Your task to perform on an android device: Search for seafood restaurants on Google Maps Image 0: 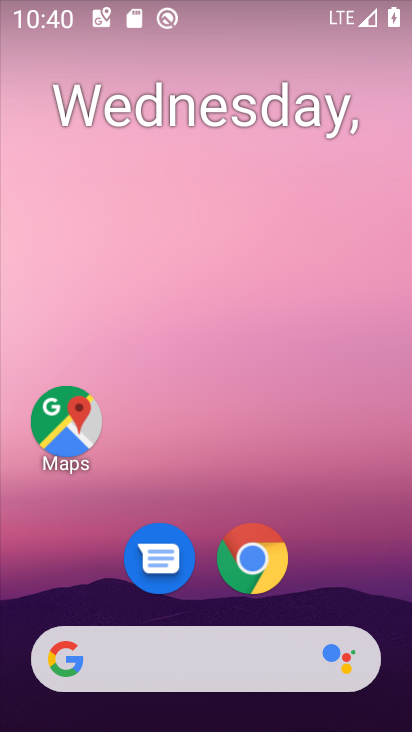
Step 0: click (52, 411)
Your task to perform on an android device: Search for seafood restaurants on Google Maps Image 1: 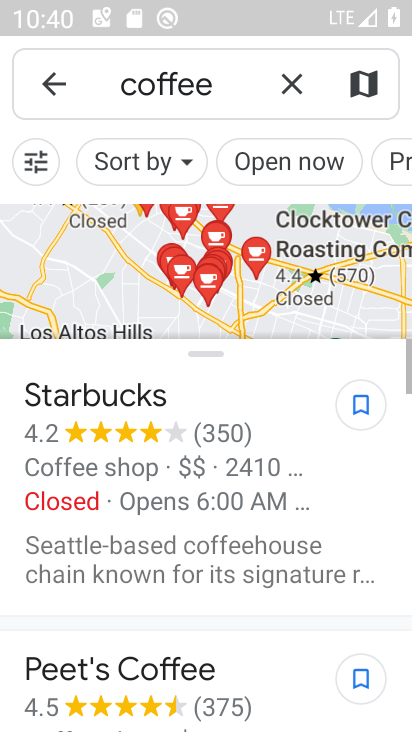
Step 1: click (301, 93)
Your task to perform on an android device: Search for seafood restaurants on Google Maps Image 2: 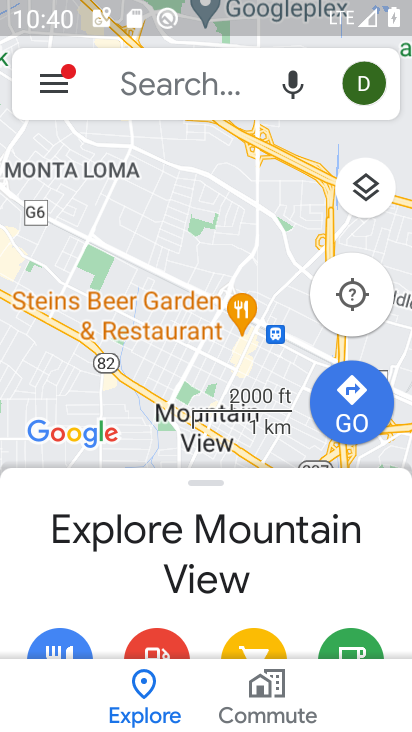
Step 2: click (150, 101)
Your task to perform on an android device: Search for seafood restaurants on Google Maps Image 3: 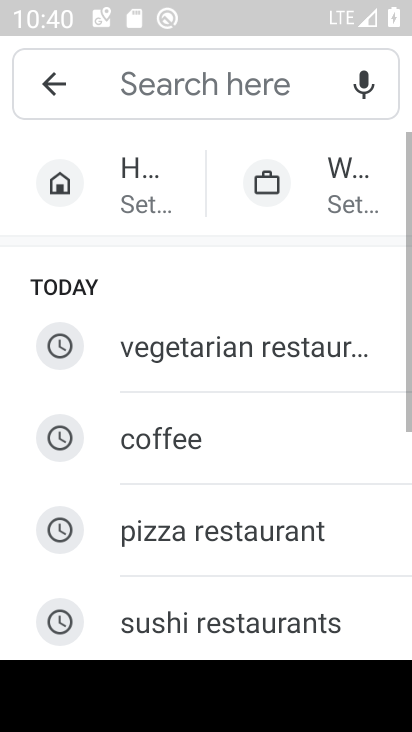
Step 3: drag from (8, 634) to (245, 213)
Your task to perform on an android device: Search for seafood restaurants on Google Maps Image 4: 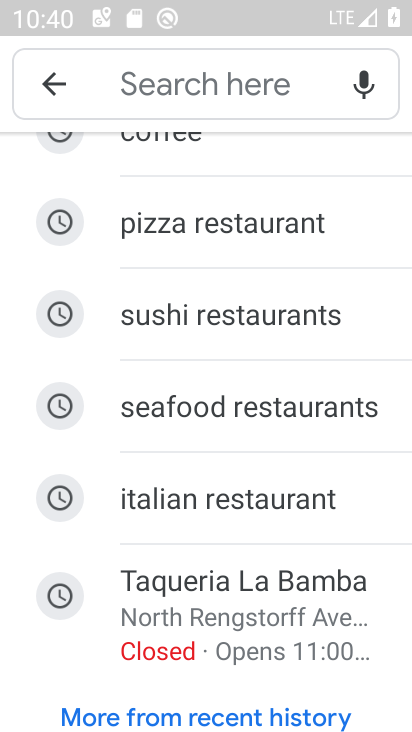
Step 4: click (212, 418)
Your task to perform on an android device: Search for seafood restaurants on Google Maps Image 5: 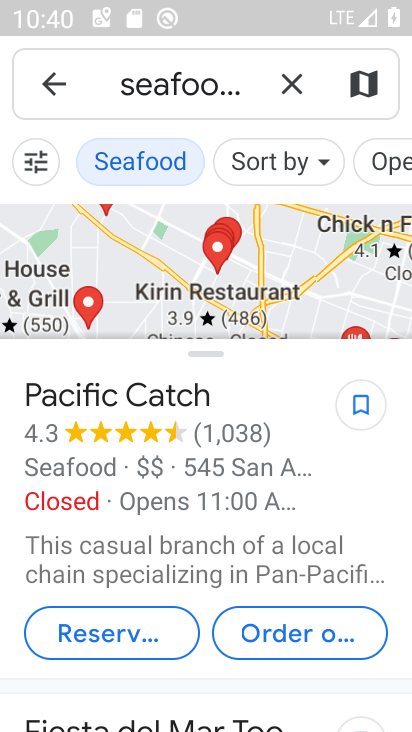
Step 5: task complete